Your task to perform on an android device: Find coffee shops on Maps Image 0: 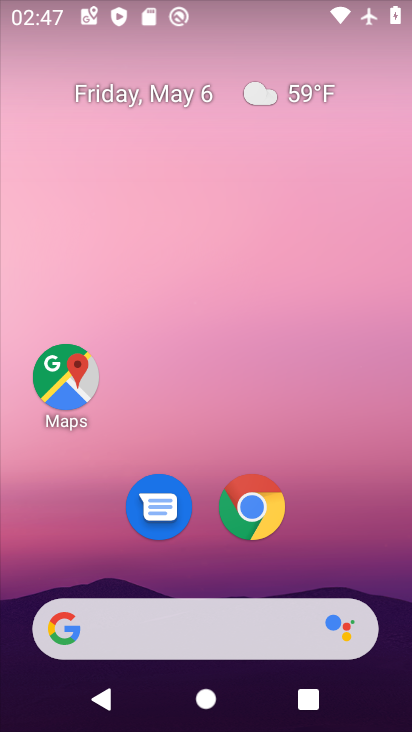
Step 0: click (63, 373)
Your task to perform on an android device: Find coffee shops on Maps Image 1: 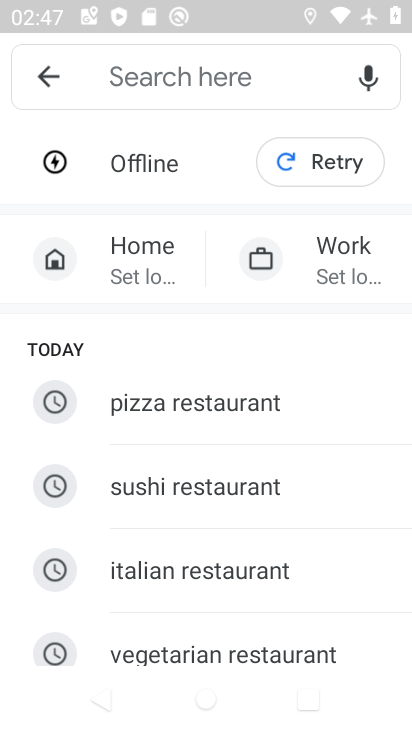
Step 1: drag from (220, 618) to (220, 334)
Your task to perform on an android device: Find coffee shops on Maps Image 2: 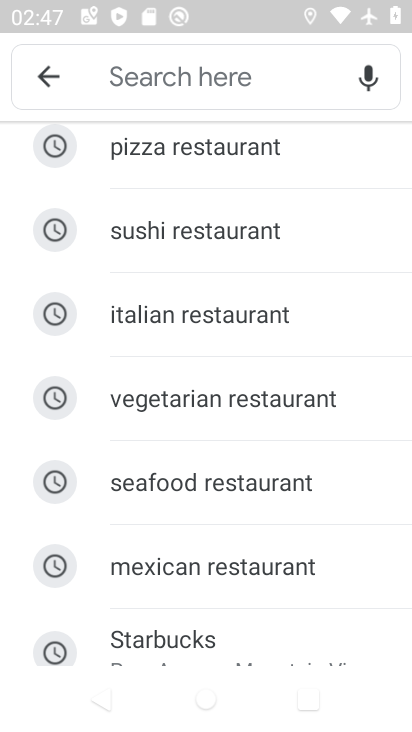
Step 2: click (145, 86)
Your task to perform on an android device: Find coffee shops on Maps Image 3: 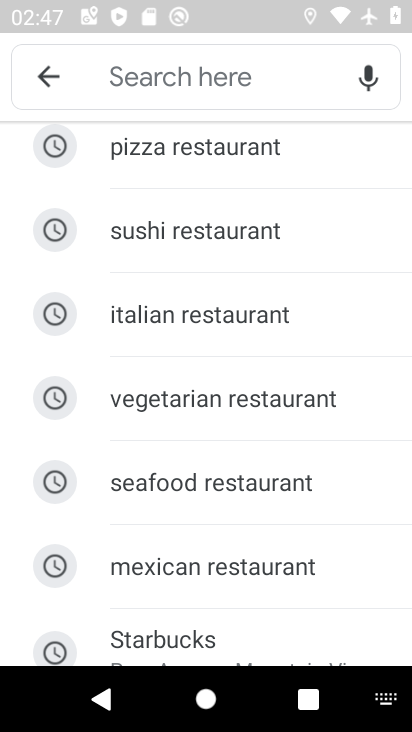
Step 3: type "coffee shops"
Your task to perform on an android device: Find coffee shops on Maps Image 4: 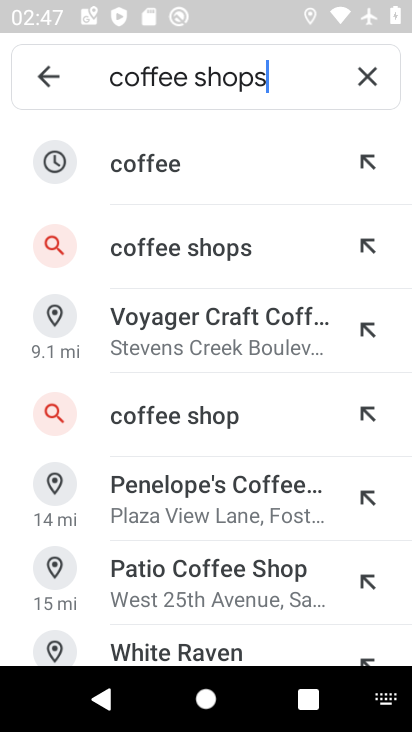
Step 4: click (229, 255)
Your task to perform on an android device: Find coffee shops on Maps Image 5: 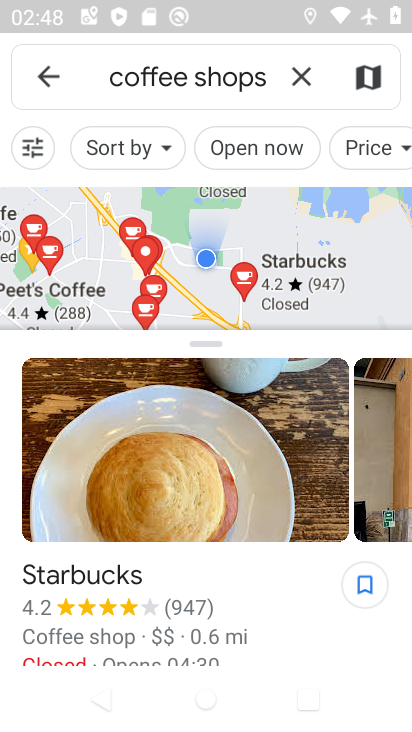
Step 5: task complete